Your task to perform on an android device: open device folders in google photos Image 0: 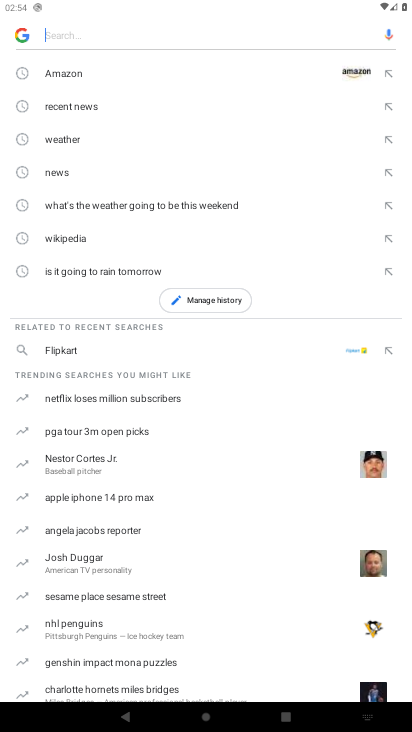
Step 0: press home button
Your task to perform on an android device: open device folders in google photos Image 1: 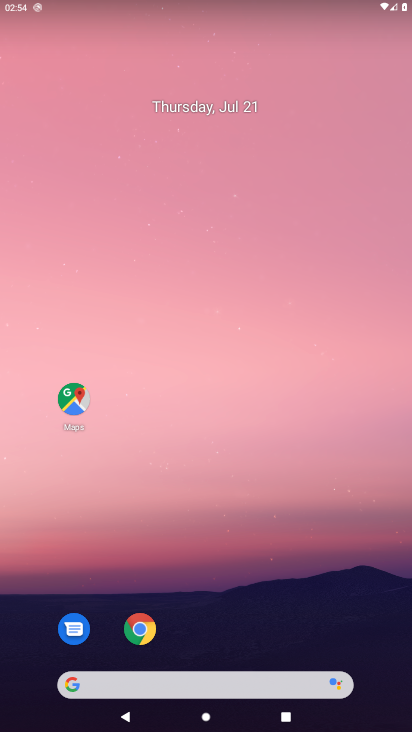
Step 1: drag from (192, 467) to (306, 217)
Your task to perform on an android device: open device folders in google photos Image 2: 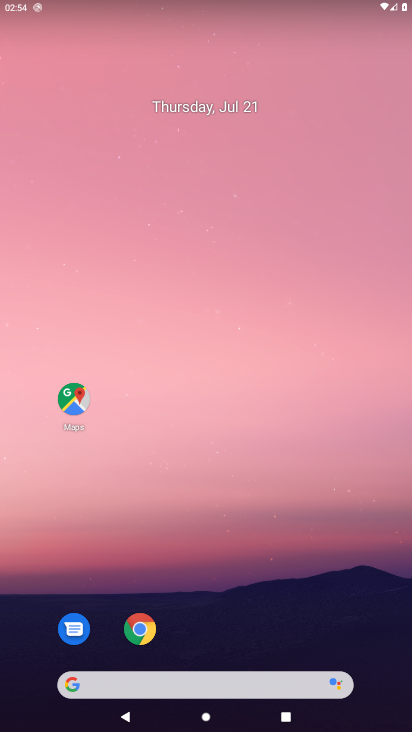
Step 2: drag from (35, 718) to (301, 155)
Your task to perform on an android device: open device folders in google photos Image 3: 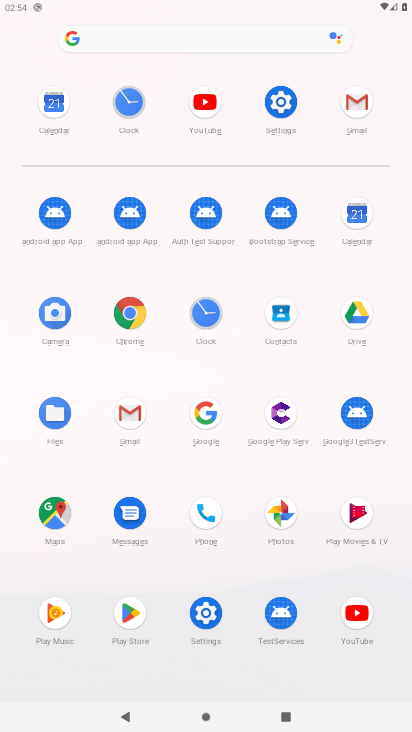
Step 3: click (279, 516)
Your task to perform on an android device: open device folders in google photos Image 4: 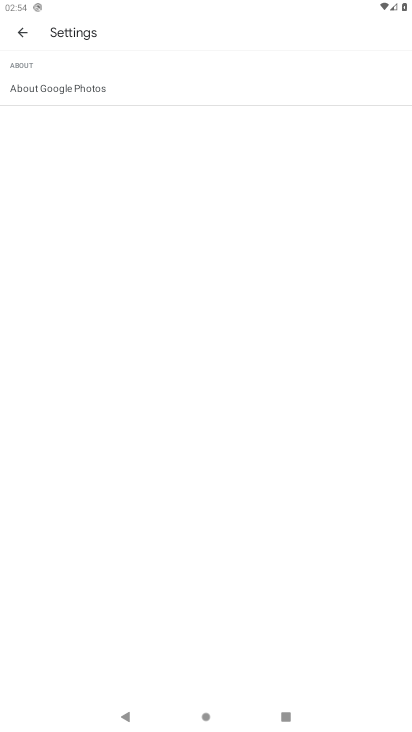
Step 4: click (22, 29)
Your task to perform on an android device: open device folders in google photos Image 5: 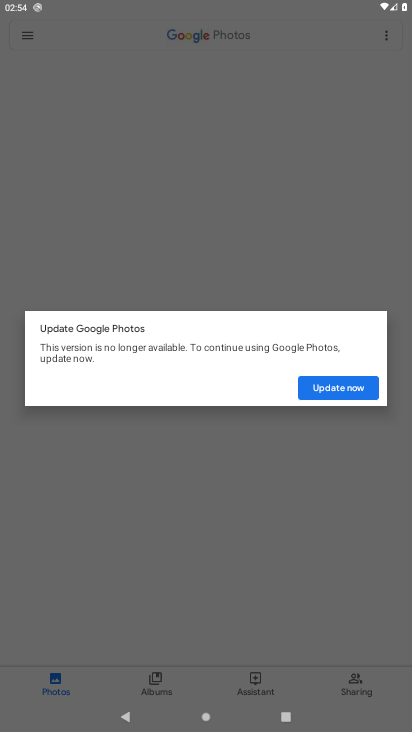
Step 5: click (361, 380)
Your task to perform on an android device: open device folders in google photos Image 6: 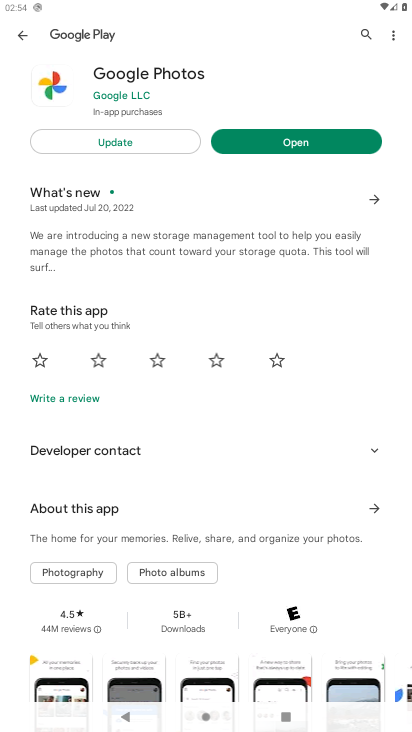
Step 6: click (280, 130)
Your task to perform on an android device: open device folders in google photos Image 7: 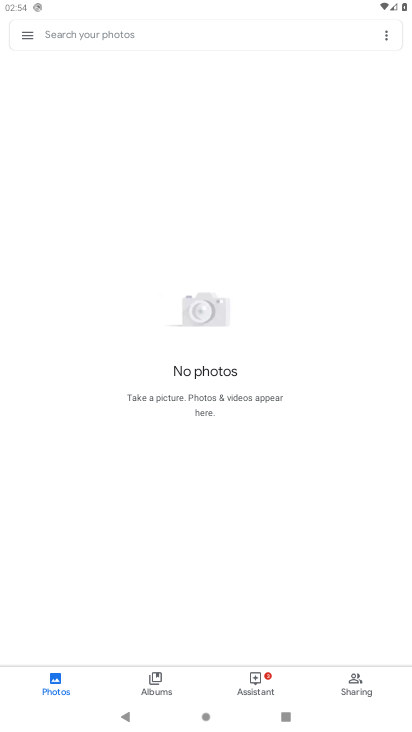
Step 7: task complete